Your task to perform on an android device: Go to accessibility settings Image 0: 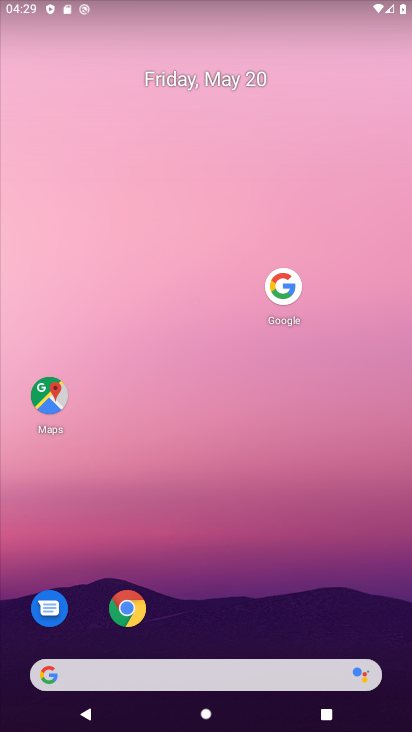
Step 0: drag from (237, 658) to (62, 29)
Your task to perform on an android device: Go to accessibility settings Image 1: 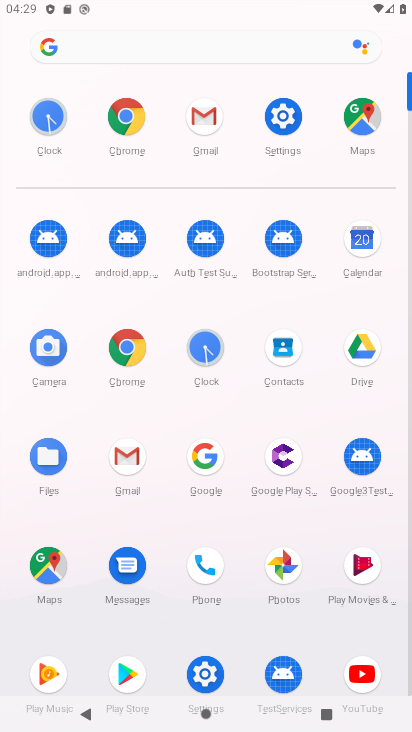
Step 1: click (284, 126)
Your task to perform on an android device: Go to accessibility settings Image 2: 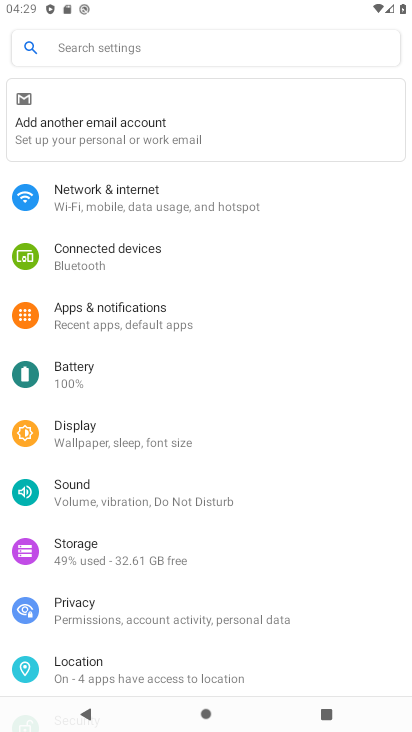
Step 2: drag from (193, 594) to (123, 104)
Your task to perform on an android device: Go to accessibility settings Image 3: 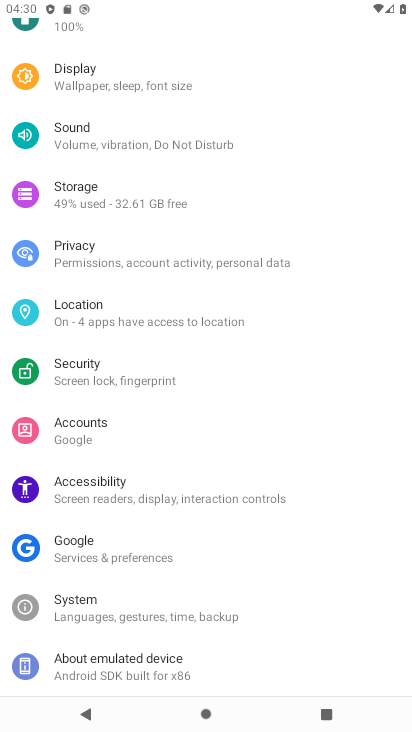
Step 3: click (125, 480)
Your task to perform on an android device: Go to accessibility settings Image 4: 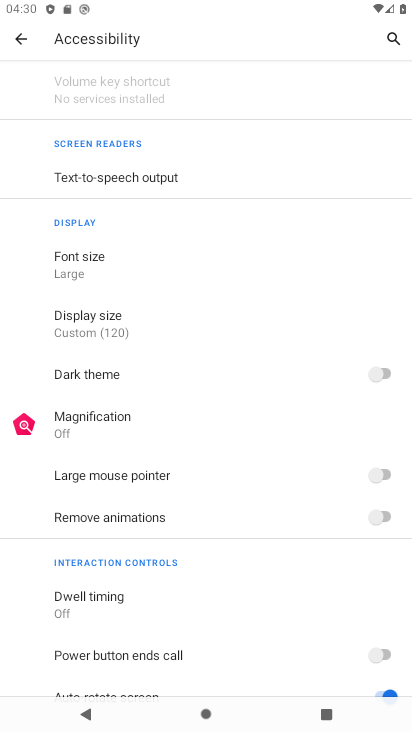
Step 4: task complete